Your task to perform on an android device: open device folders in google photos Image 0: 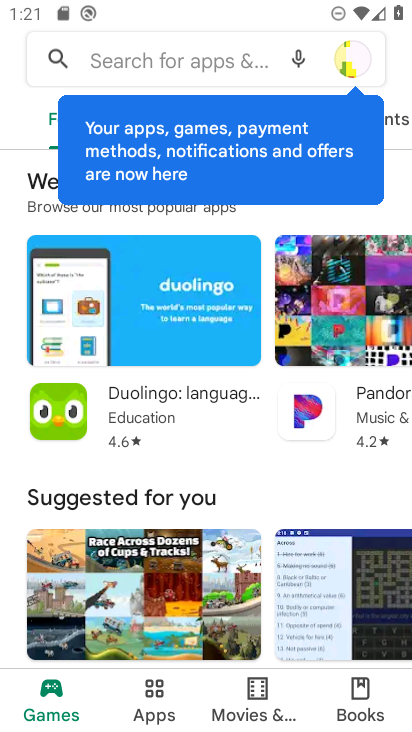
Step 0: press home button
Your task to perform on an android device: open device folders in google photos Image 1: 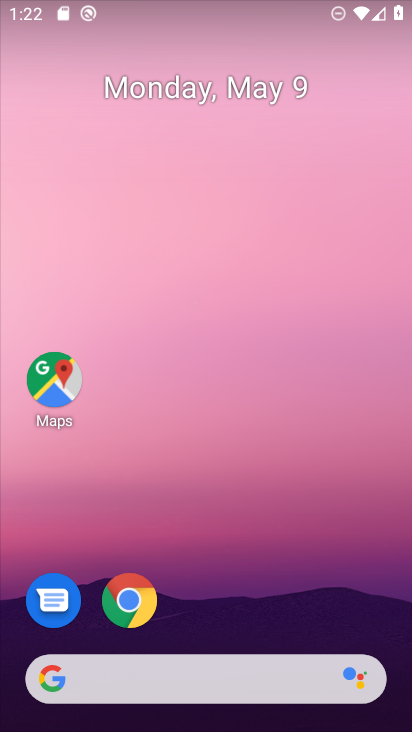
Step 1: drag from (202, 673) to (356, 124)
Your task to perform on an android device: open device folders in google photos Image 2: 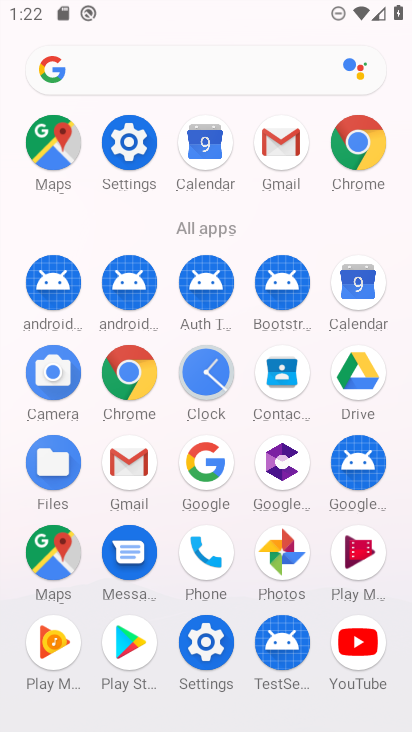
Step 2: click (287, 555)
Your task to perform on an android device: open device folders in google photos Image 3: 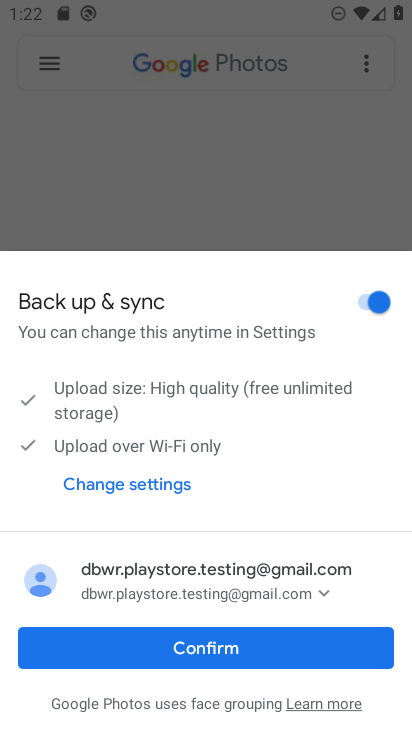
Step 3: click (188, 651)
Your task to perform on an android device: open device folders in google photos Image 4: 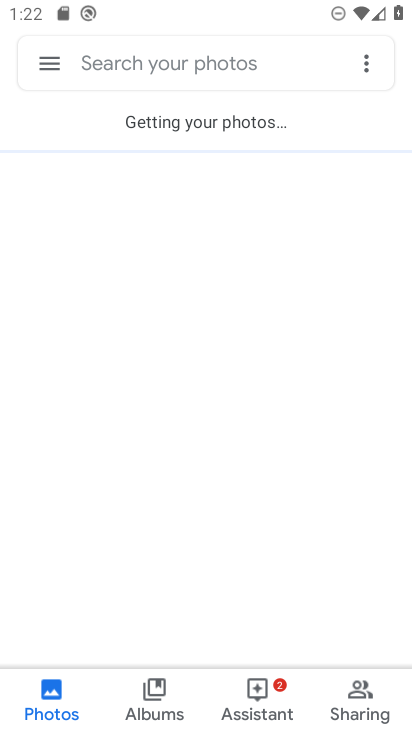
Step 4: click (43, 67)
Your task to perform on an android device: open device folders in google photos Image 5: 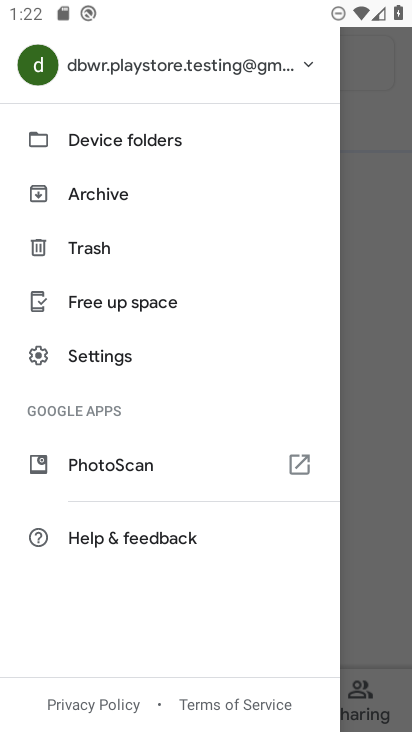
Step 5: click (83, 136)
Your task to perform on an android device: open device folders in google photos Image 6: 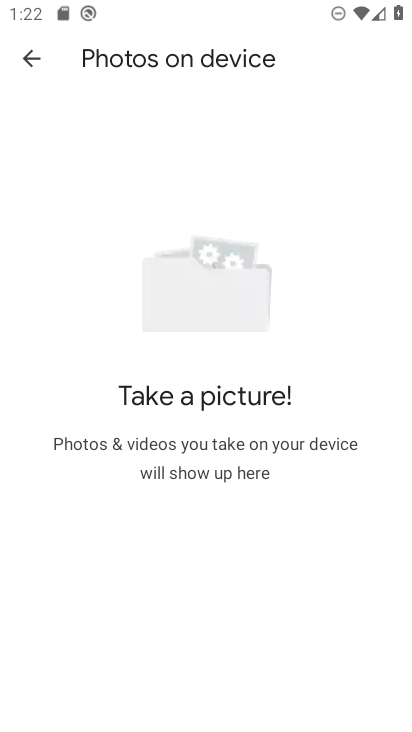
Step 6: task complete